Your task to perform on an android device: check android version Image 0: 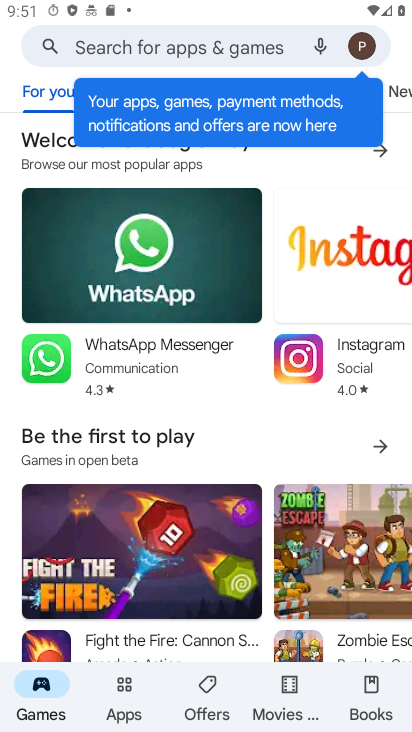
Step 0: press back button
Your task to perform on an android device: check android version Image 1: 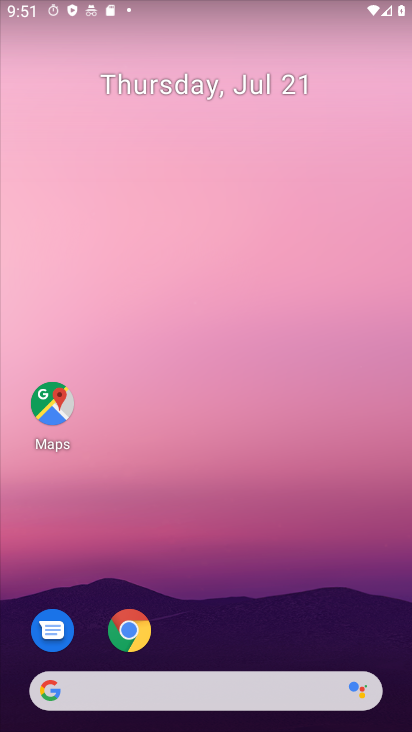
Step 1: drag from (281, 563) to (222, 204)
Your task to perform on an android device: check android version Image 2: 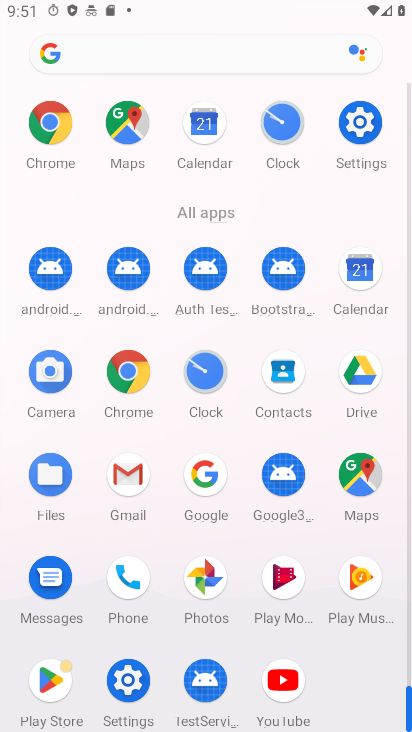
Step 2: drag from (233, 579) to (184, 170)
Your task to perform on an android device: check android version Image 3: 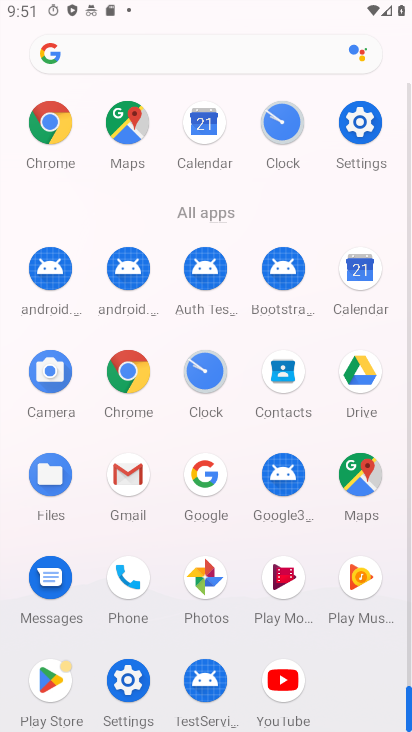
Step 3: click (364, 122)
Your task to perform on an android device: check android version Image 4: 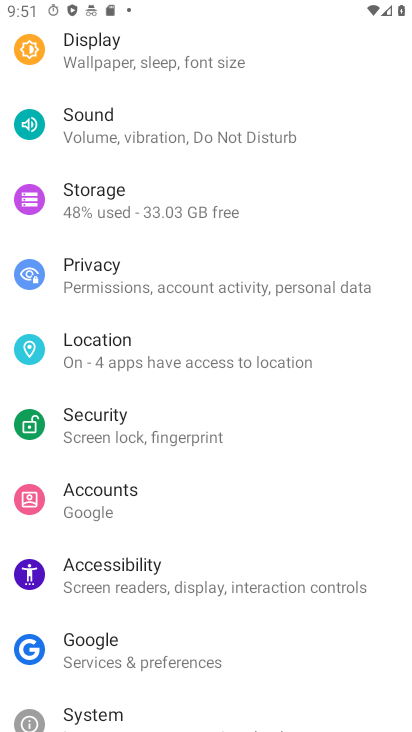
Step 4: drag from (188, 570) to (168, 240)
Your task to perform on an android device: check android version Image 5: 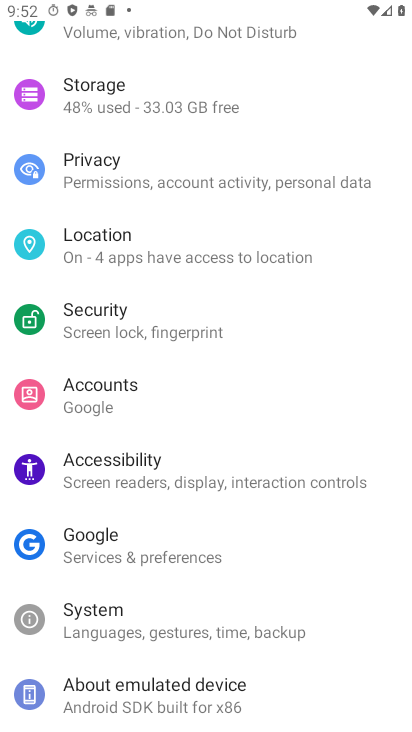
Step 5: click (132, 700)
Your task to perform on an android device: check android version Image 6: 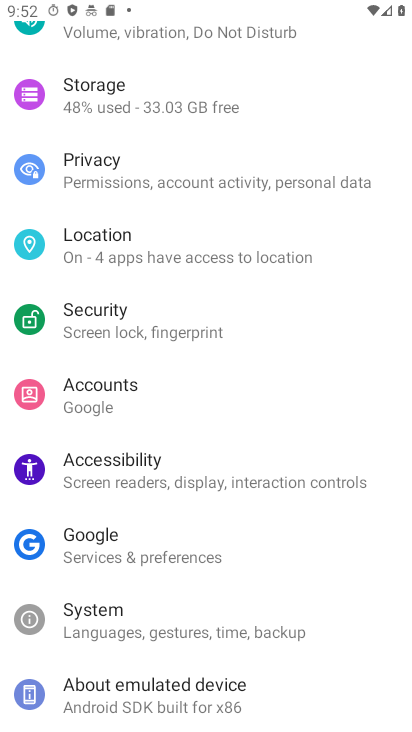
Step 6: click (132, 700)
Your task to perform on an android device: check android version Image 7: 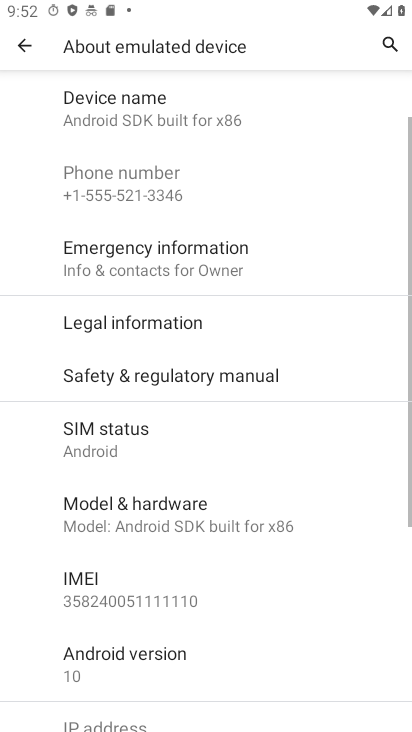
Step 7: click (117, 120)
Your task to perform on an android device: check android version Image 8: 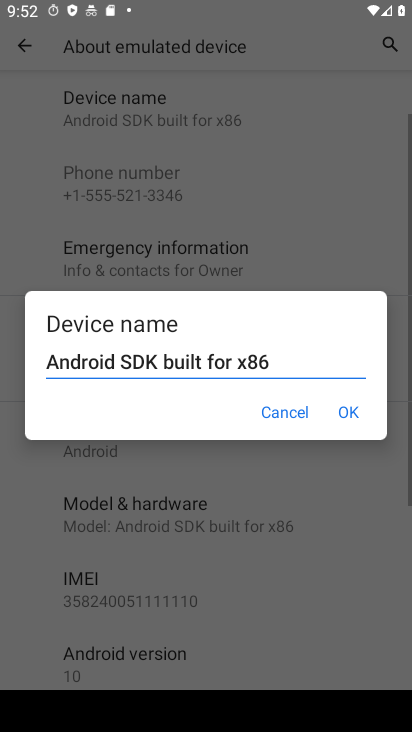
Step 8: click (289, 419)
Your task to perform on an android device: check android version Image 9: 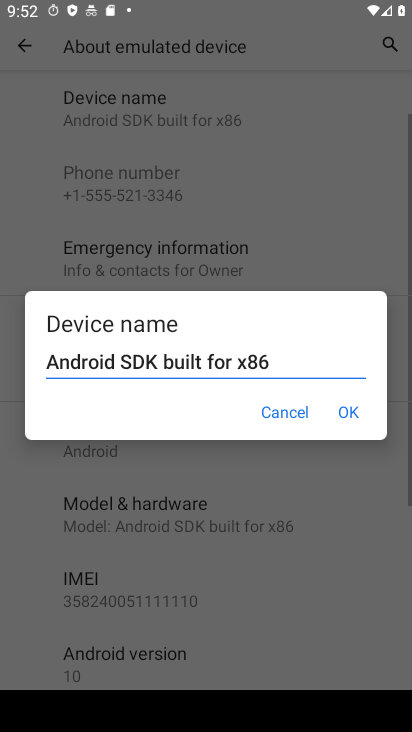
Step 9: click (296, 405)
Your task to perform on an android device: check android version Image 10: 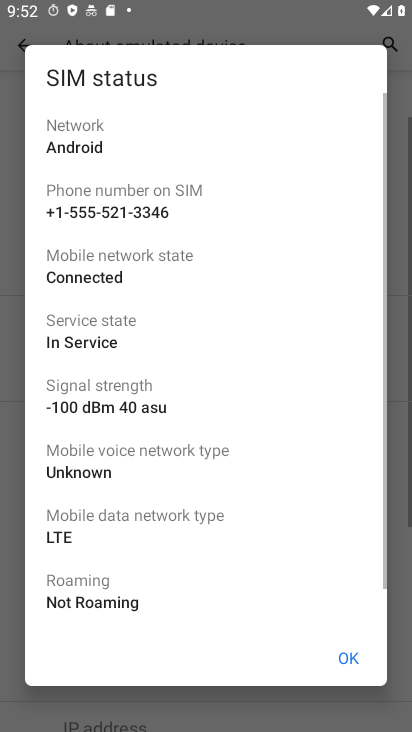
Step 10: task complete